Your task to perform on an android device: Check the settings for the Twitter app Image 0: 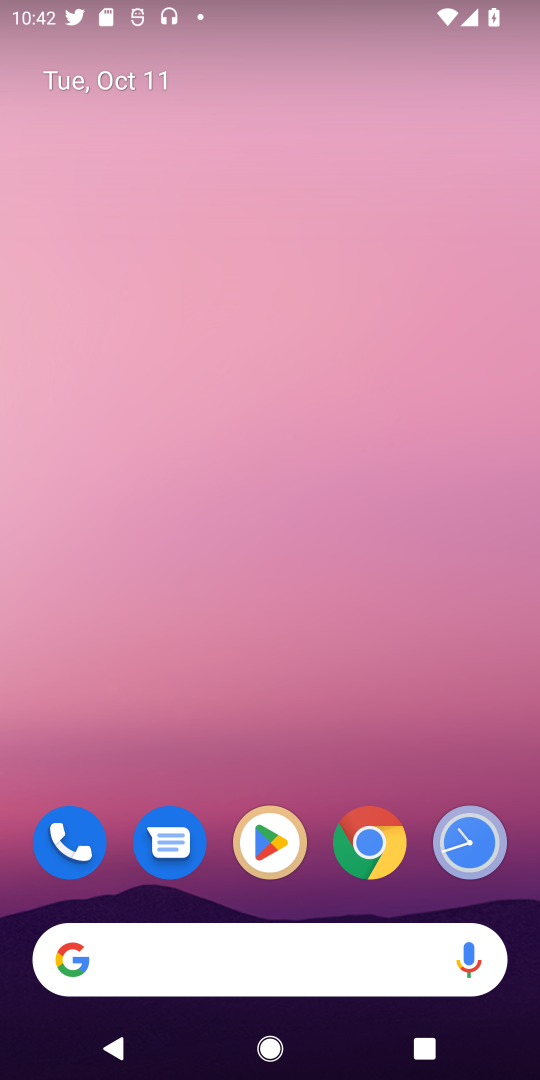
Step 0: click (395, 839)
Your task to perform on an android device: Check the settings for the Twitter app Image 1: 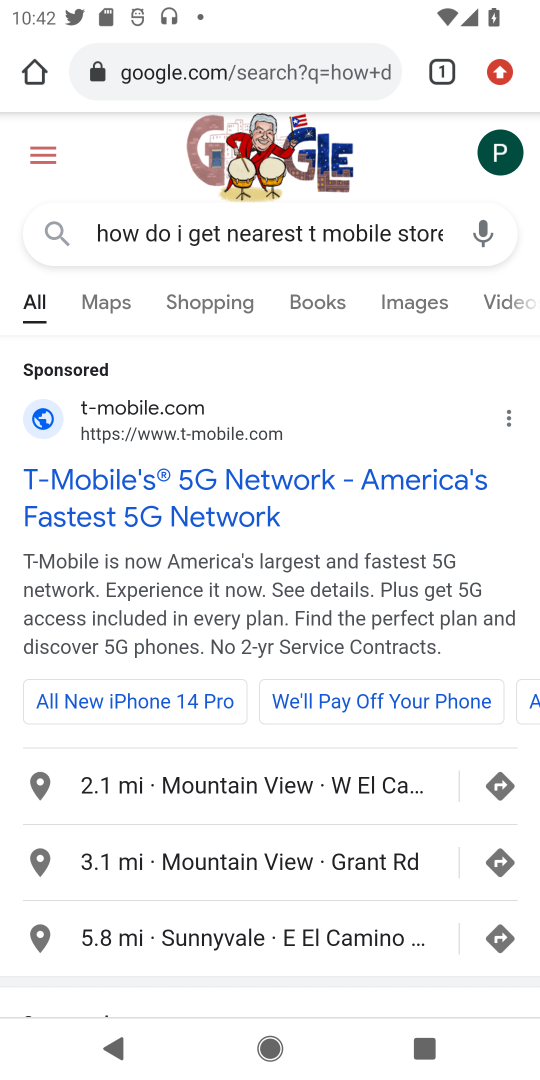
Step 1: press home button
Your task to perform on an android device: Check the settings for the Twitter app Image 2: 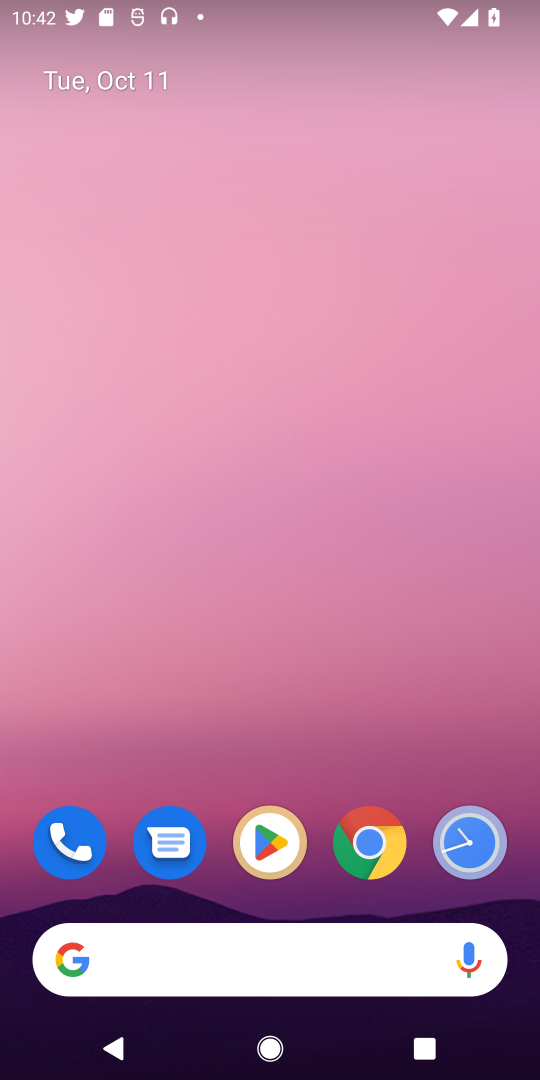
Step 2: drag from (310, 638) to (349, 202)
Your task to perform on an android device: Check the settings for the Twitter app Image 3: 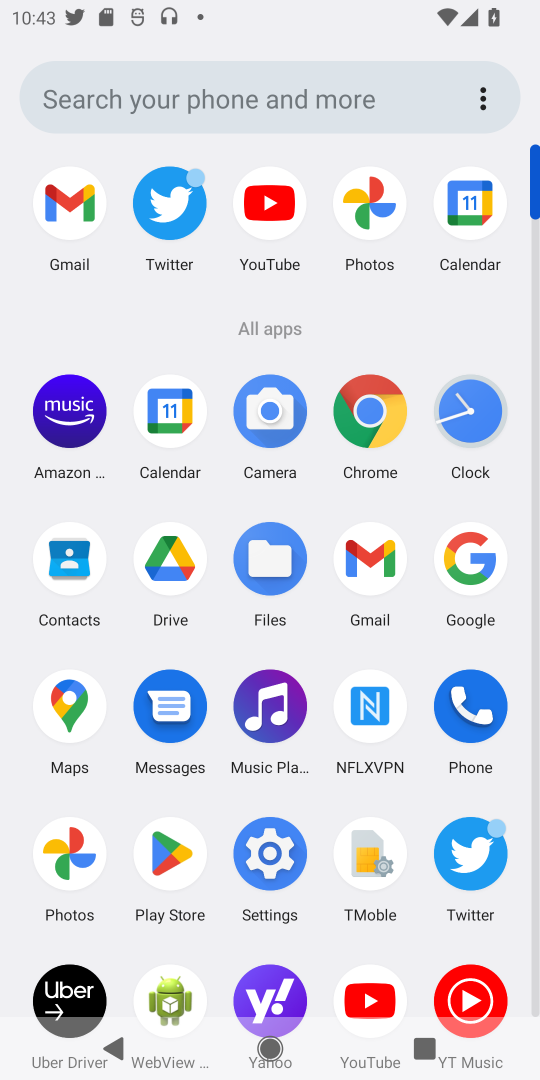
Step 3: click (179, 213)
Your task to perform on an android device: Check the settings for the Twitter app Image 4: 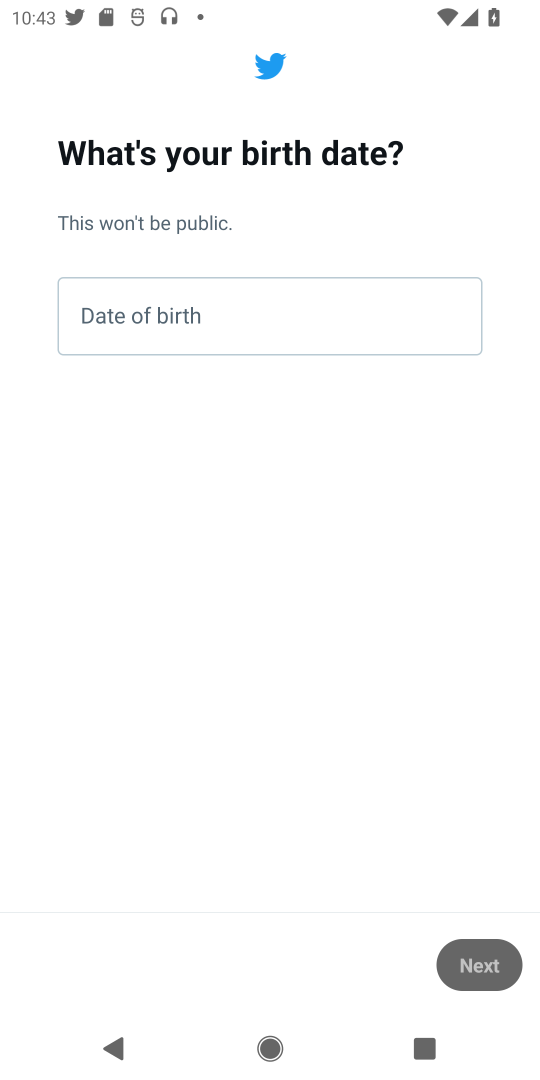
Step 4: task complete